Your task to perform on an android device: toggle show notifications on the lock screen Image 0: 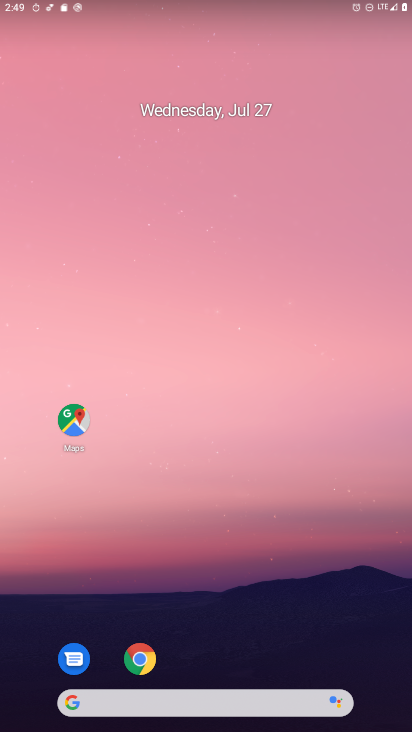
Step 0: drag from (295, 602) to (249, 115)
Your task to perform on an android device: toggle show notifications on the lock screen Image 1: 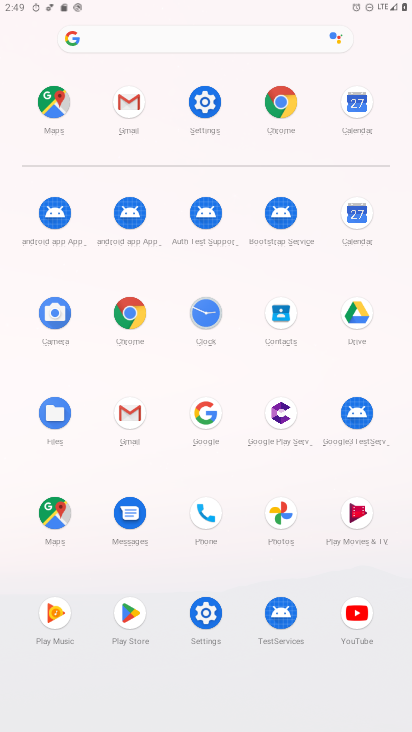
Step 1: click (208, 97)
Your task to perform on an android device: toggle show notifications on the lock screen Image 2: 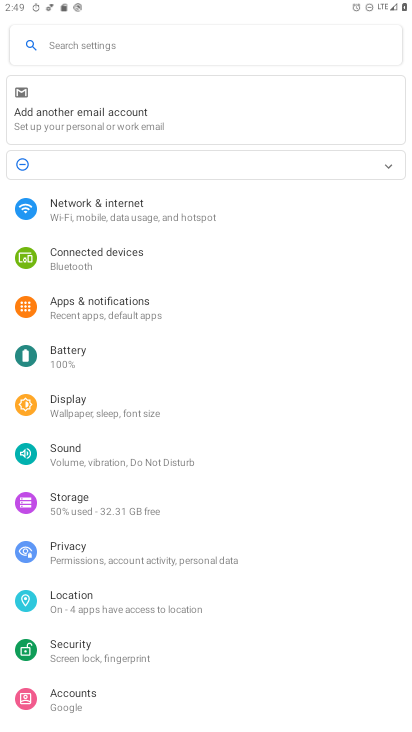
Step 2: click (121, 313)
Your task to perform on an android device: toggle show notifications on the lock screen Image 3: 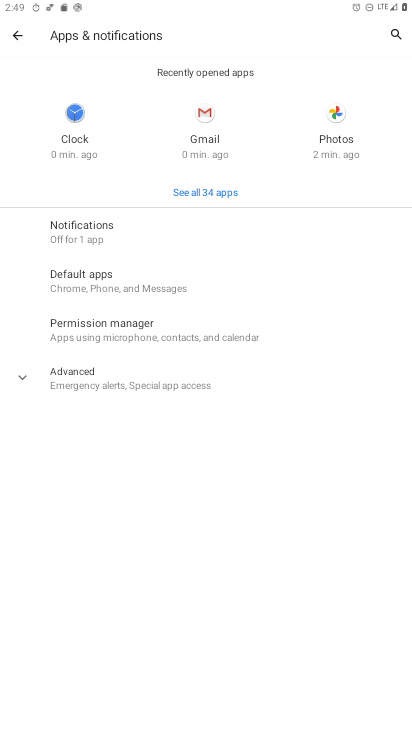
Step 3: click (121, 249)
Your task to perform on an android device: toggle show notifications on the lock screen Image 4: 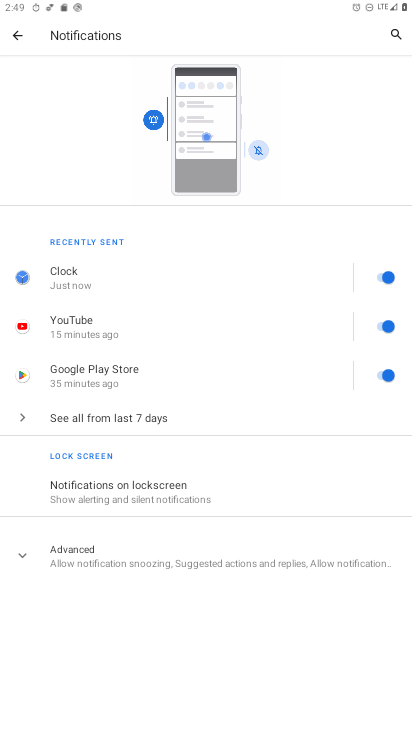
Step 4: click (139, 491)
Your task to perform on an android device: toggle show notifications on the lock screen Image 5: 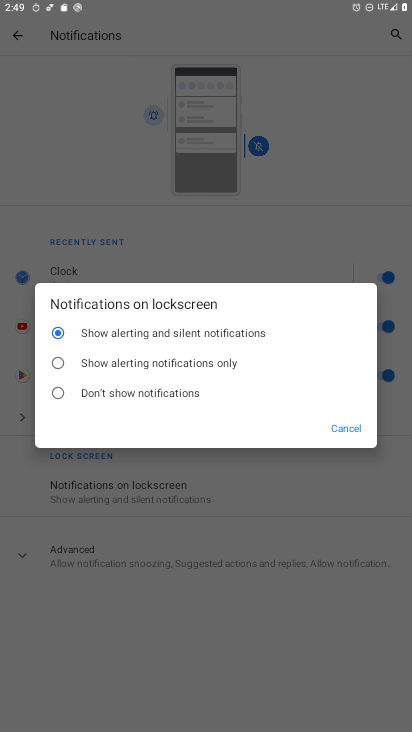
Step 5: click (166, 364)
Your task to perform on an android device: toggle show notifications on the lock screen Image 6: 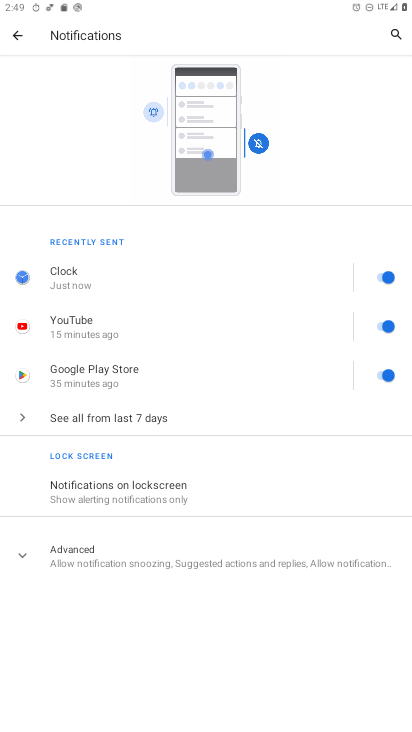
Step 6: task complete